Your task to perform on an android device: toggle show notifications on the lock screen Image 0: 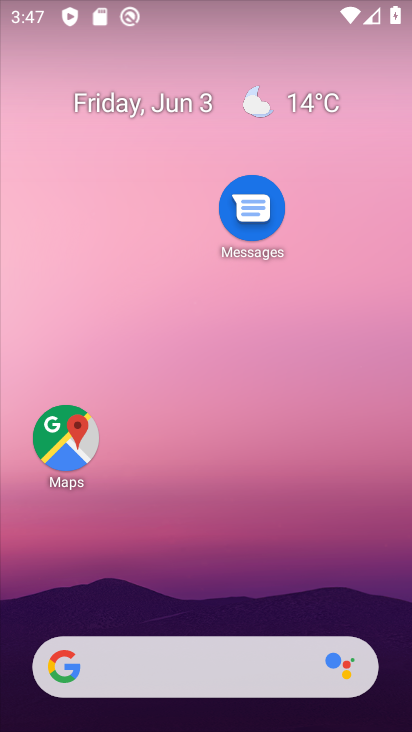
Step 0: drag from (165, 585) to (132, 256)
Your task to perform on an android device: toggle show notifications on the lock screen Image 1: 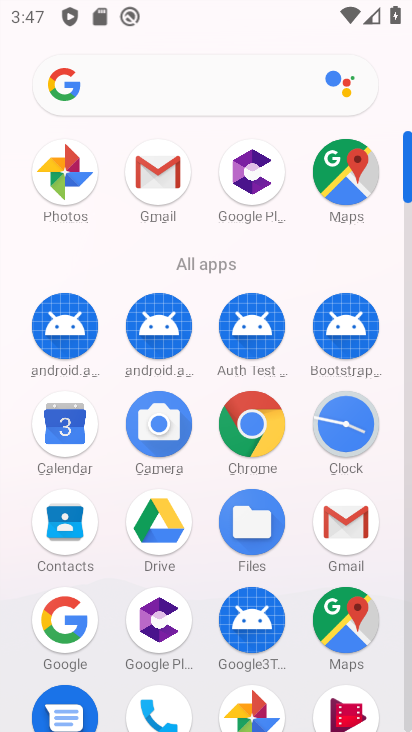
Step 1: drag from (303, 573) to (318, 363)
Your task to perform on an android device: toggle show notifications on the lock screen Image 2: 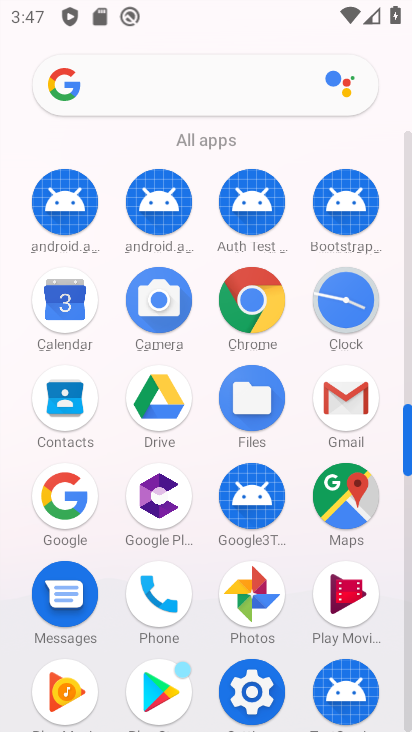
Step 2: click (256, 683)
Your task to perform on an android device: toggle show notifications on the lock screen Image 3: 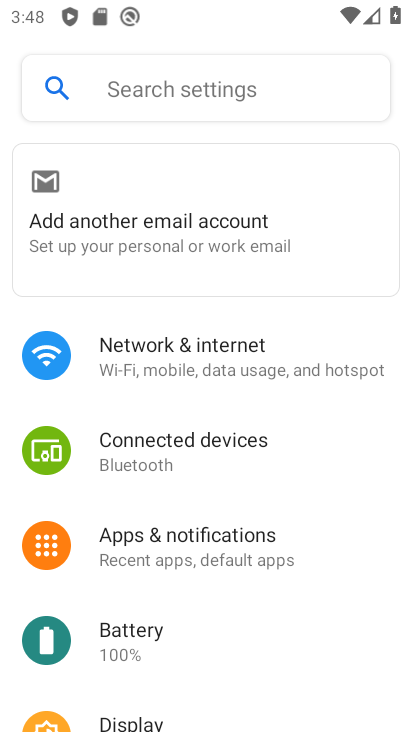
Step 3: drag from (209, 594) to (249, 429)
Your task to perform on an android device: toggle show notifications on the lock screen Image 4: 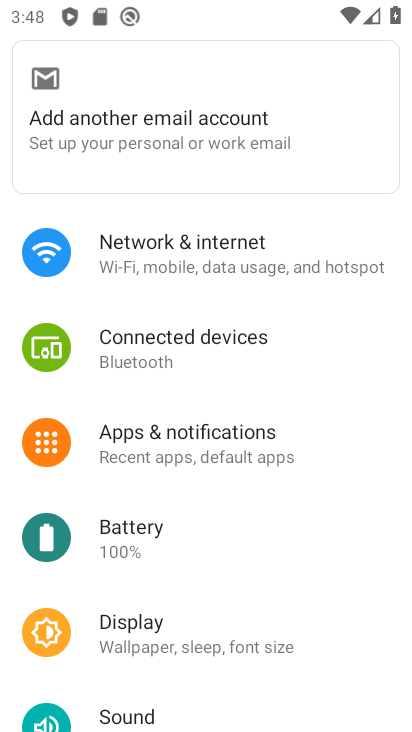
Step 4: click (200, 455)
Your task to perform on an android device: toggle show notifications on the lock screen Image 5: 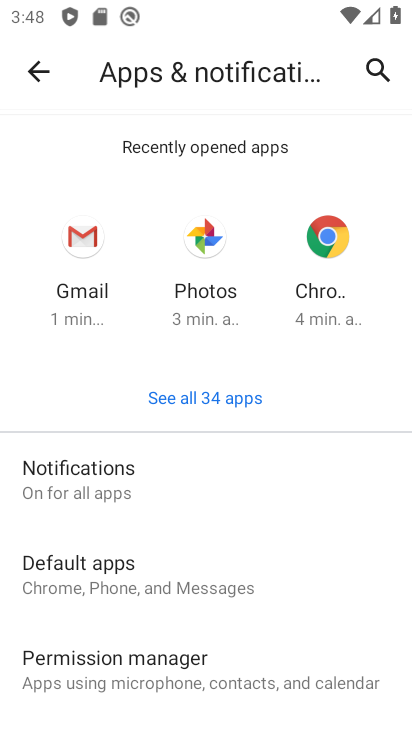
Step 5: drag from (178, 621) to (222, 515)
Your task to perform on an android device: toggle show notifications on the lock screen Image 6: 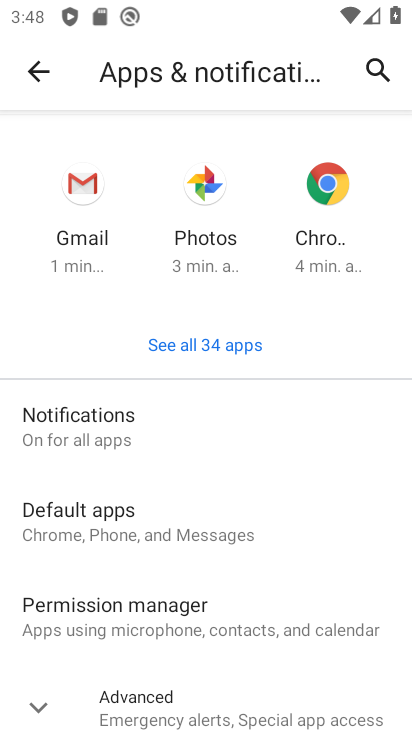
Step 6: click (98, 420)
Your task to perform on an android device: toggle show notifications on the lock screen Image 7: 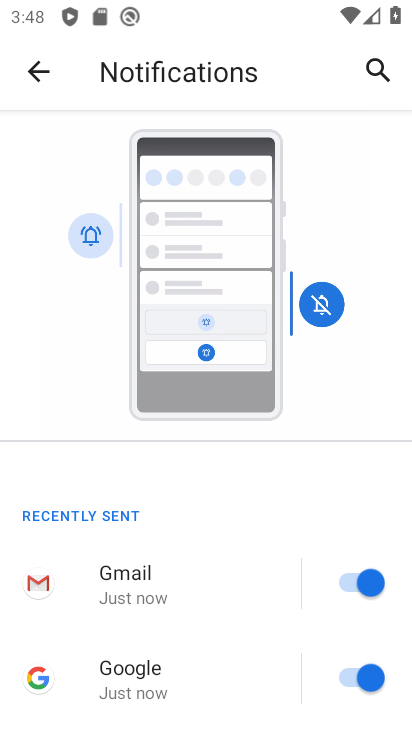
Step 7: drag from (217, 649) to (238, 404)
Your task to perform on an android device: toggle show notifications on the lock screen Image 8: 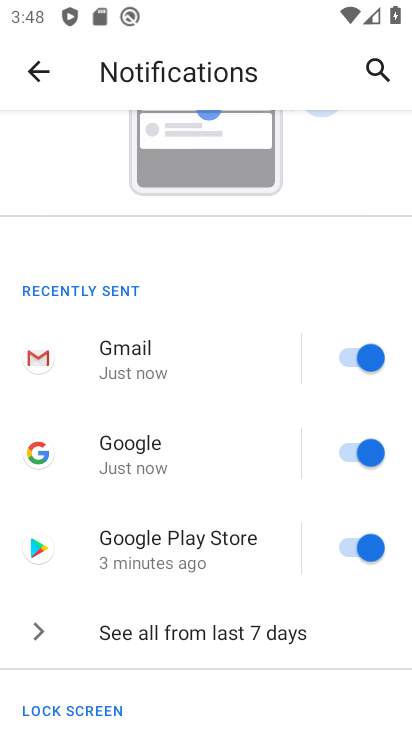
Step 8: drag from (203, 609) to (243, 410)
Your task to perform on an android device: toggle show notifications on the lock screen Image 9: 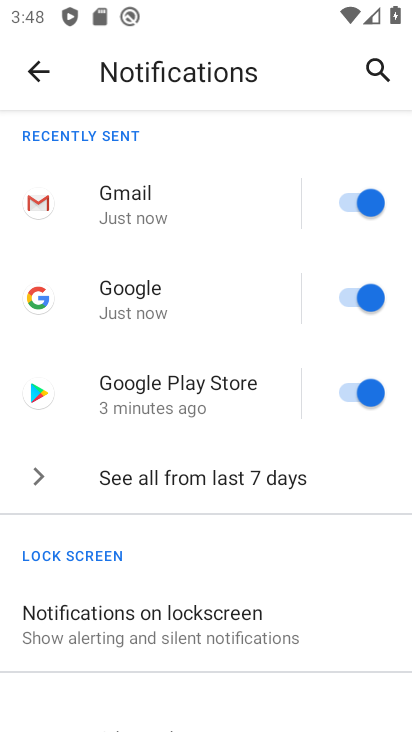
Step 9: drag from (188, 644) to (206, 461)
Your task to perform on an android device: toggle show notifications on the lock screen Image 10: 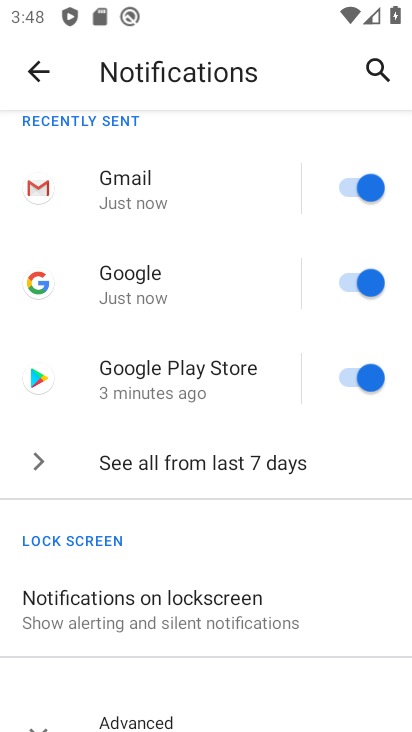
Step 10: click (173, 611)
Your task to perform on an android device: toggle show notifications on the lock screen Image 11: 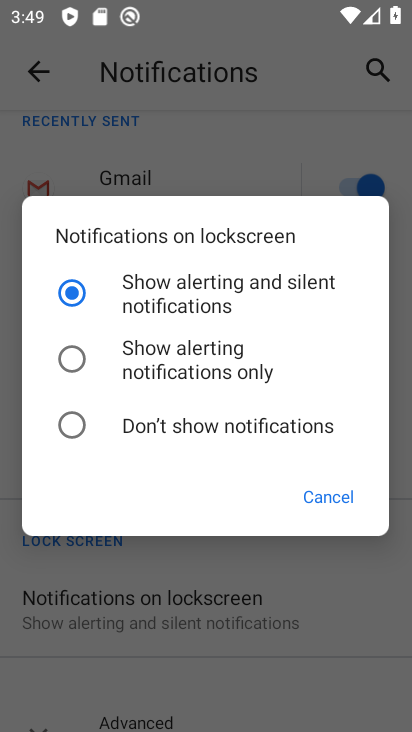
Step 11: click (69, 411)
Your task to perform on an android device: toggle show notifications on the lock screen Image 12: 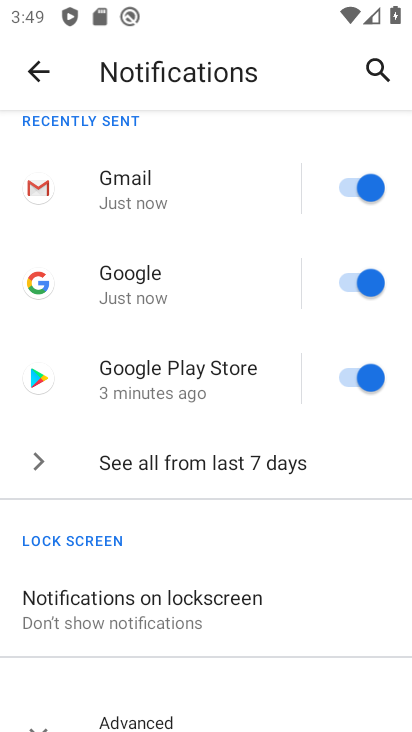
Step 12: task complete